Your task to perform on an android device: Go to display settings Image 0: 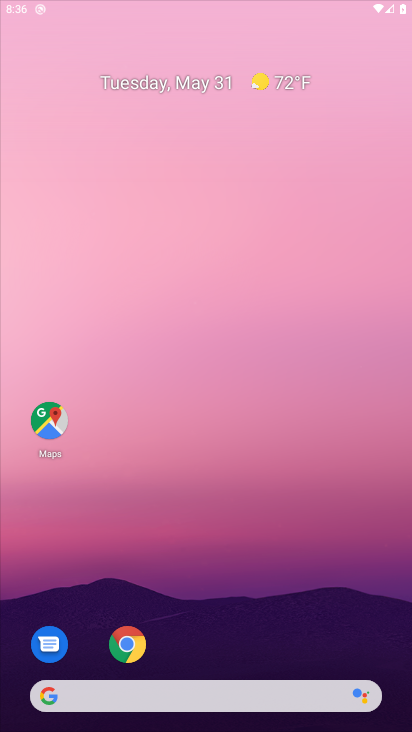
Step 0: press home button
Your task to perform on an android device: Go to display settings Image 1: 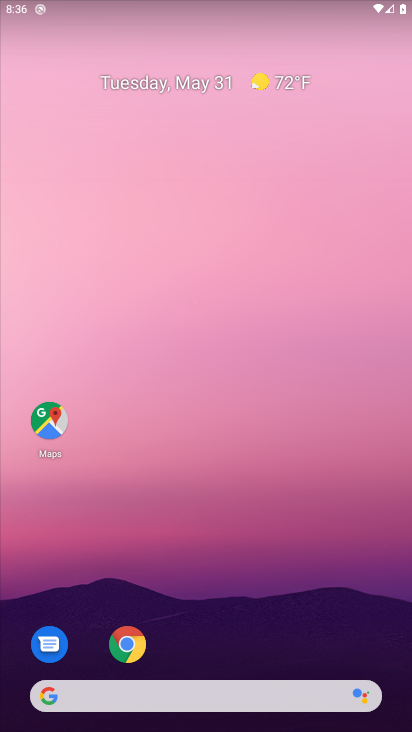
Step 1: drag from (213, 657) to (213, 33)
Your task to perform on an android device: Go to display settings Image 2: 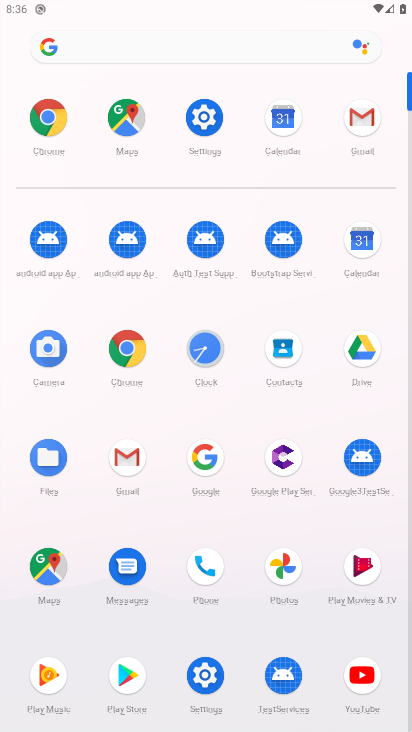
Step 2: click (201, 112)
Your task to perform on an android device: Go to display settings Image 3: 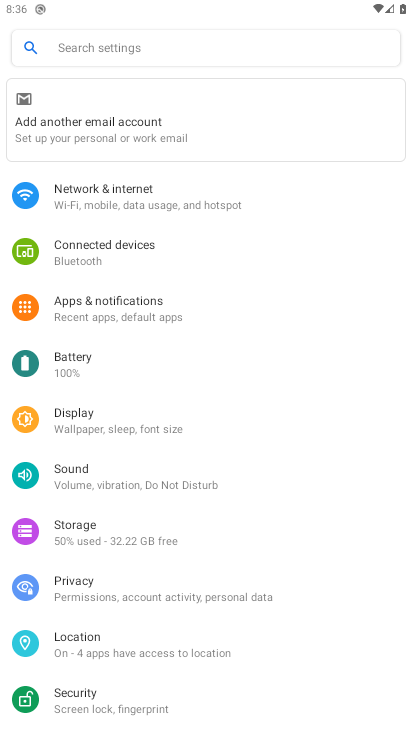
Step 3: click (99, 409)
Your task to perform on an android device: Go to display settings Image 4: 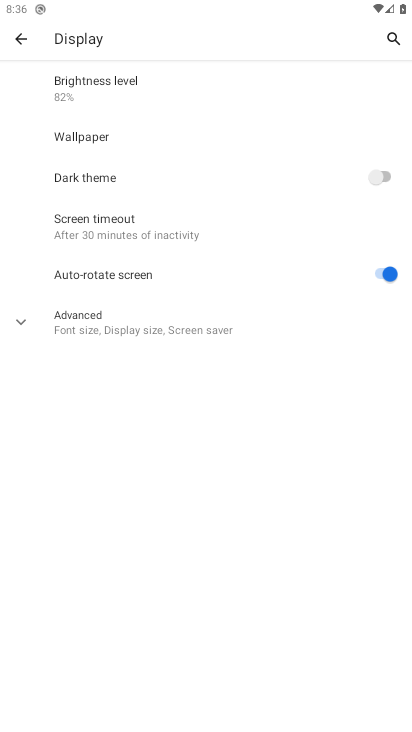
Step 4: click (22, 317)
Your task to perform on an android device: Go to display settings Image 5: 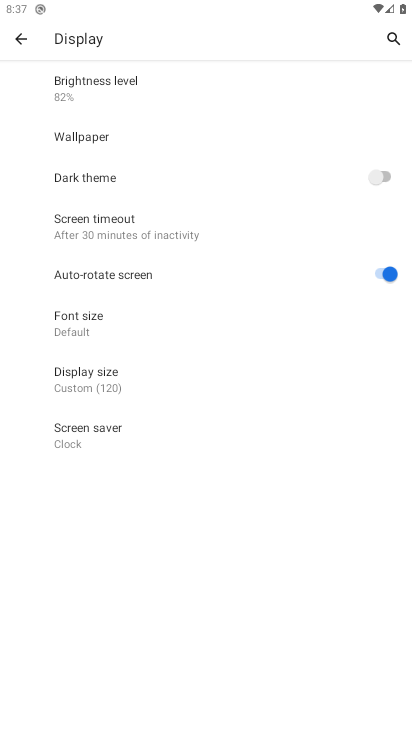
Step 5: task complete